Your task to perform on an android device: open the mobile data screen to see how much data has been used Image 0: 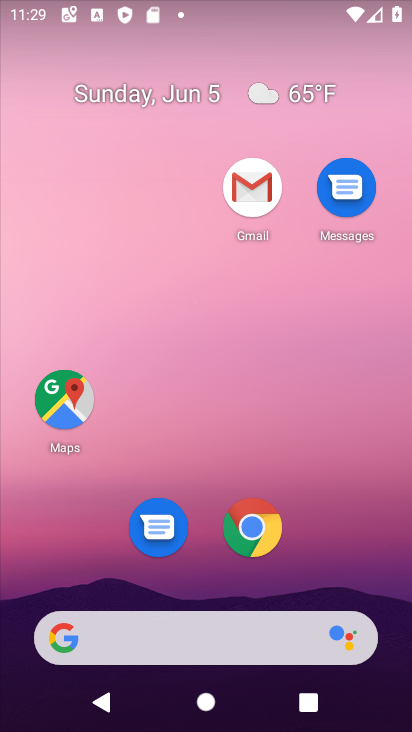
Step 0: drag from (403, 631) to (344, 154)
Your task to perform on an android device: open the mobile data screen to see how much data has been used Image 1: 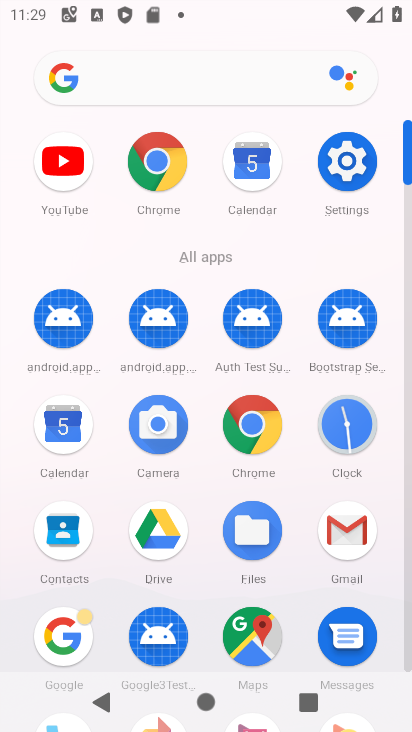
Step 1: click (352, 156)
Your task to perform on an android device: open the mobile data screen to see how much data has been used Image 2: 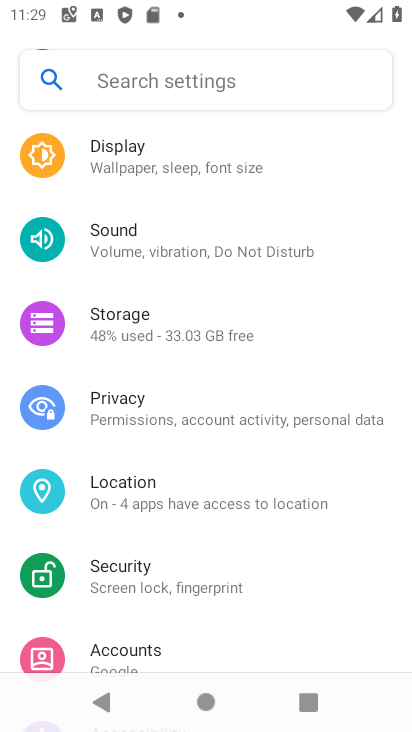
Step 2: drag from (390, 157) to (352, 388)
Your task to perform on an android device: open the mobile data screen to see how much data has been used Image 3: 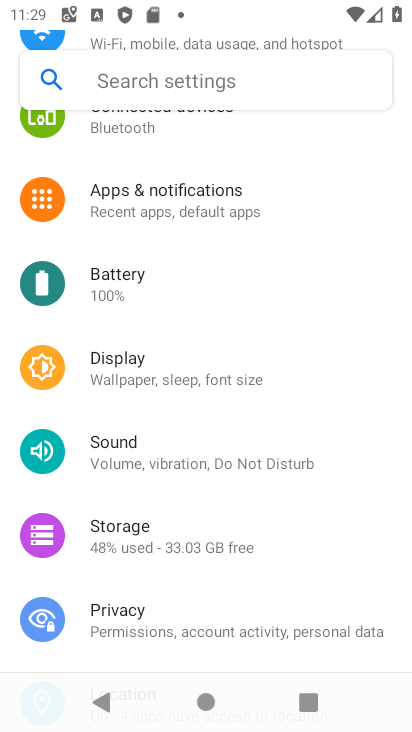
Step 3: drag from (392, 248) to (339, 443)
Your task to perform on an android device: open the mobile data screen to see how much data has been used Image 4: 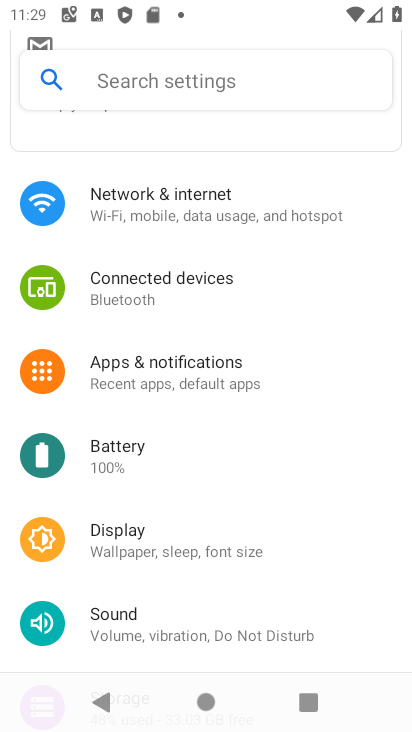
Step 4: click (205, 186)
Your task to perform on an android device: open the mobile data screen to see how much data has been used Image 5: 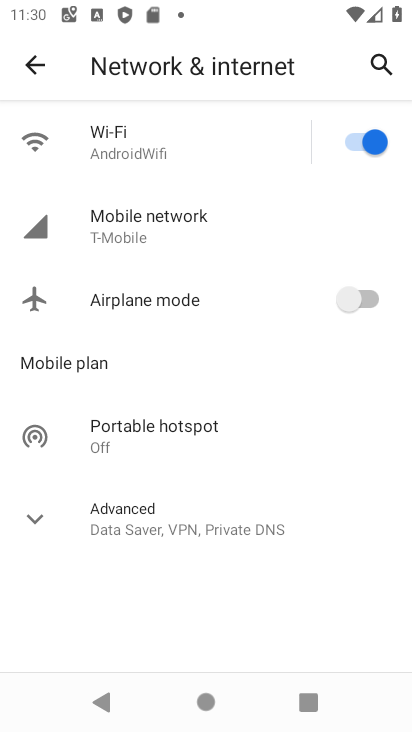
Step 5: click (80, 227)
Your task to perform on an android device: open the mobile data screen to see how much data has been used Image 6: 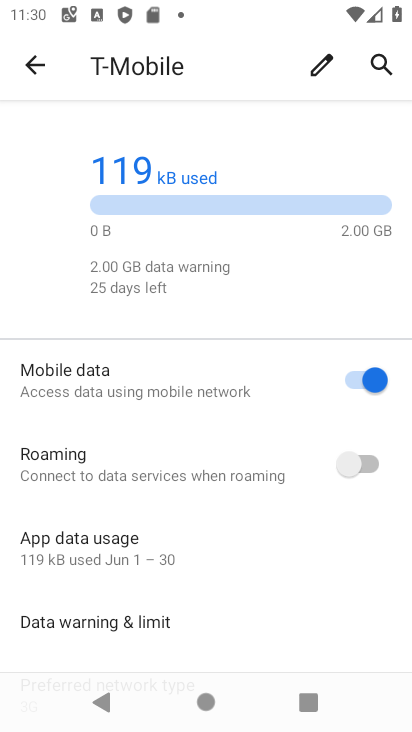
Step 6: task complete